Your task to perform on an android device: turn on javascript in the chrome app Image 0: 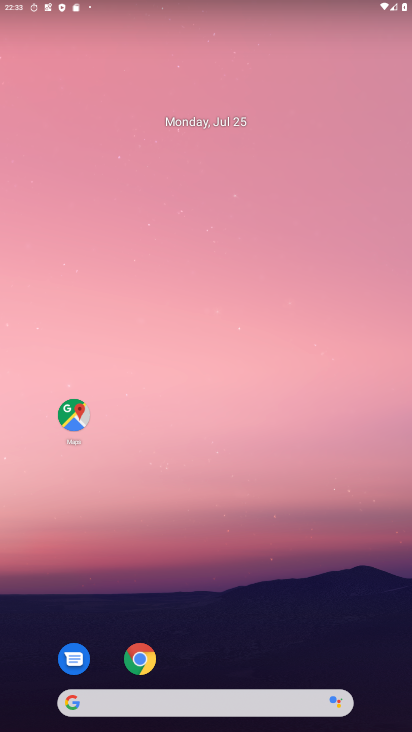
Step 0: click (145, 664)
Your task to perform on an android device: turn on javascript in the chrome app Image 1: 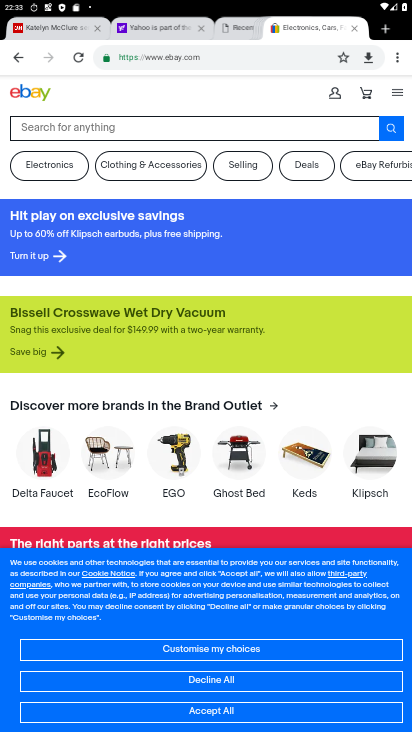
Step 1: click (396, 60)
Your task to perform on an android device: turn on javascript in the chrome app Image 2: 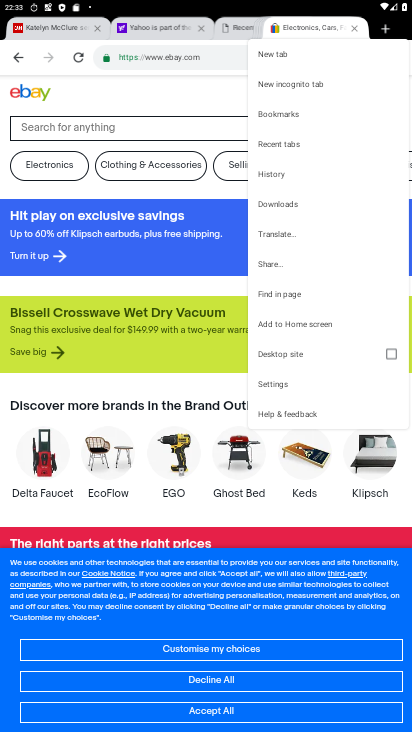
Step 2: click (306, 393)
Your task to perform on an android device: turn on javascript in the chrome app Image 3: 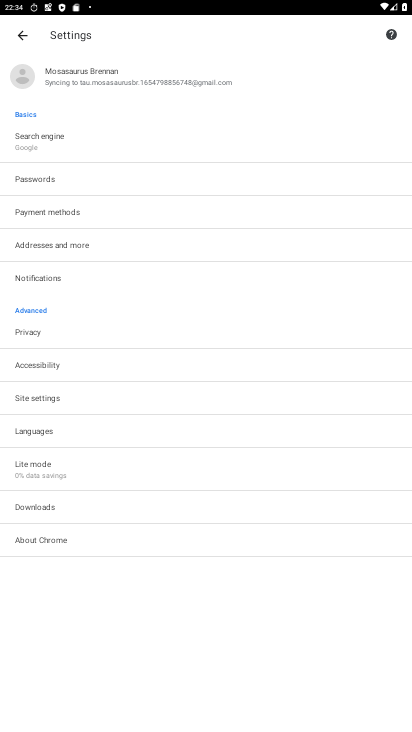
Step 3: click (78, 394)
Your task to perform on an android device: turn on javascript in the chrome app Image 4: 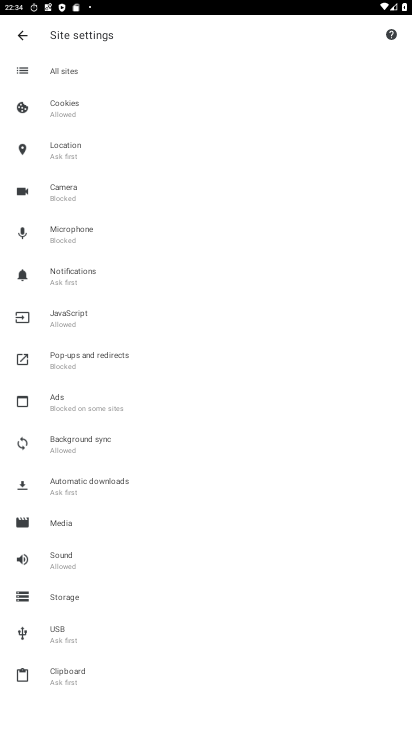
Step 4: click (46, 320)
Your task to perform on an android device: turn on javascript in the chrome app Image 5: 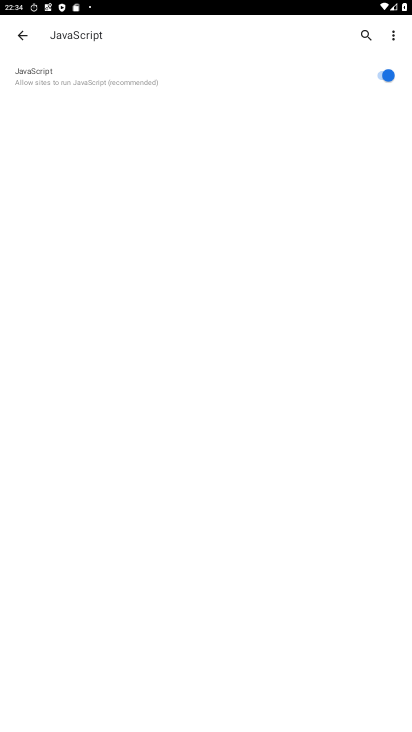
Step 5: task complete